Your task to perform on an android device: Go to privacy settings Image 0: 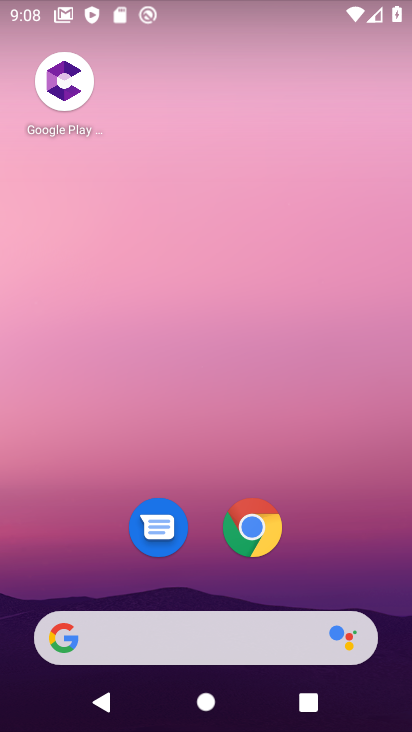
Step 0: drag from (289, 569) to (297, 145)
Your task to perform on an android device: Go to privacy settings Image 1: 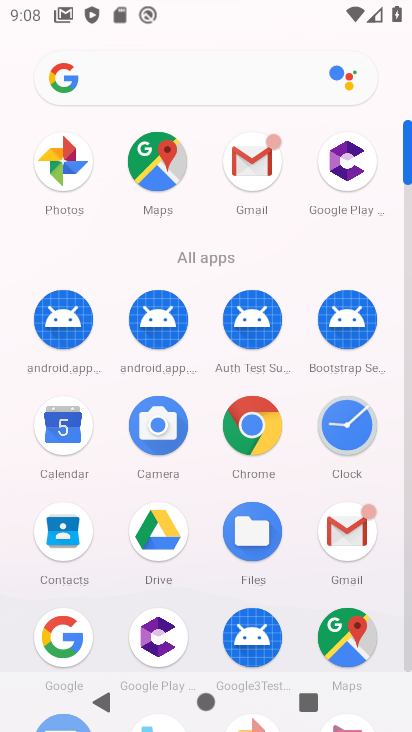
Step 1: drag from (221, 536) to (248, 168)
Your task to perform on an android device: Go to privacy settings Image 2: 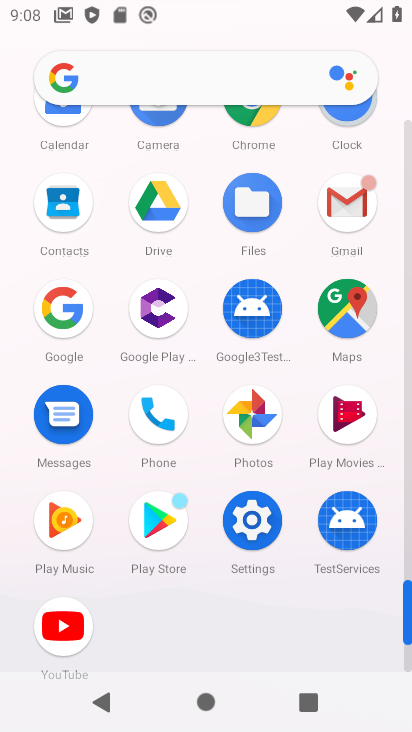
Step 2: click (261, 514)
Your task to perform on an android device: Go to privacy settings Image 3: 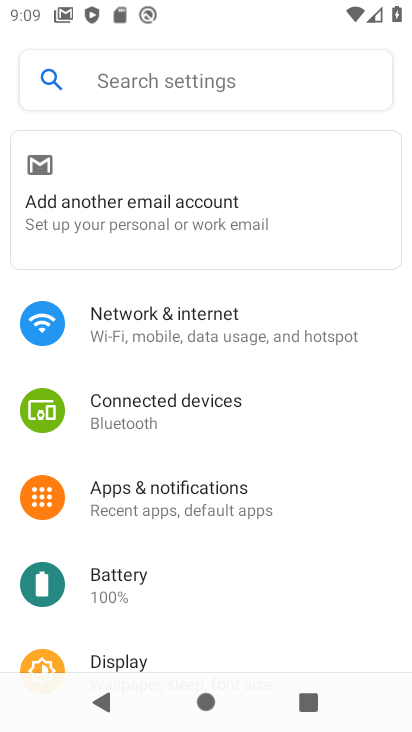
Step 3: drag from (213, 593) to (224, 69)
Your task to perform on an android device: Go to privacy settings Image 4: 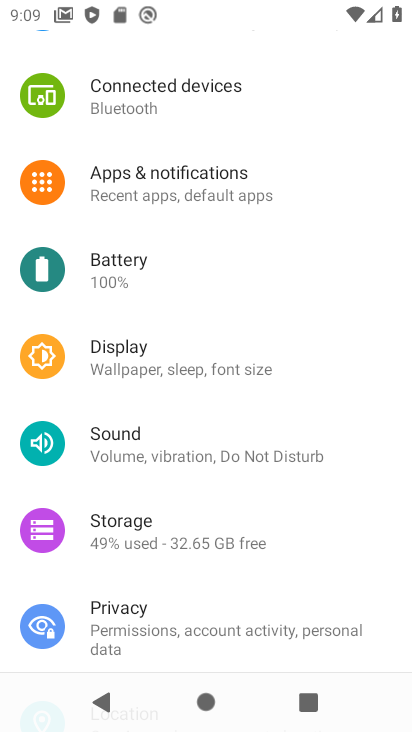
Step 4: click (212, 612)
Your task to perform on an android device: Go to privacy settings Image 5: 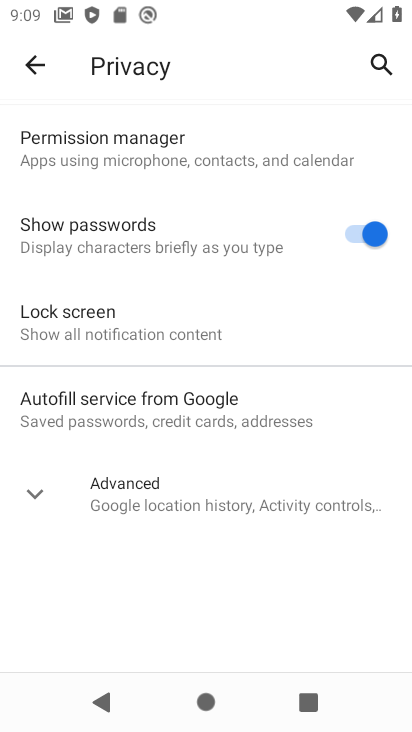
Step 5: task complete